Your task to perform on an android device: star an email in the gmail app Image 0: 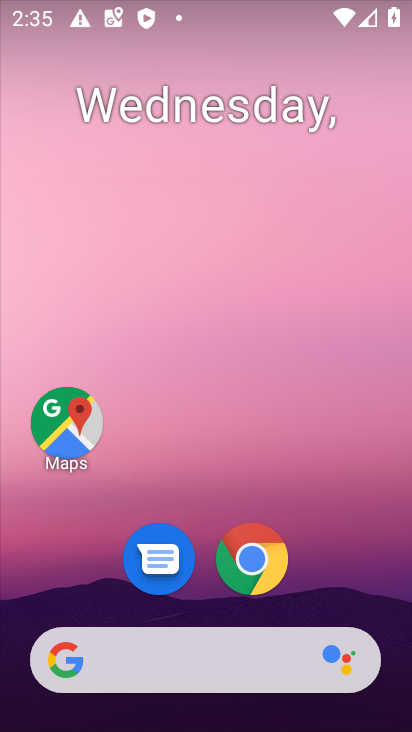
Step 0: drag from (192, 567) to (205, 55)
Your task to perform on an android device: star an email in the gmail app Image 1: 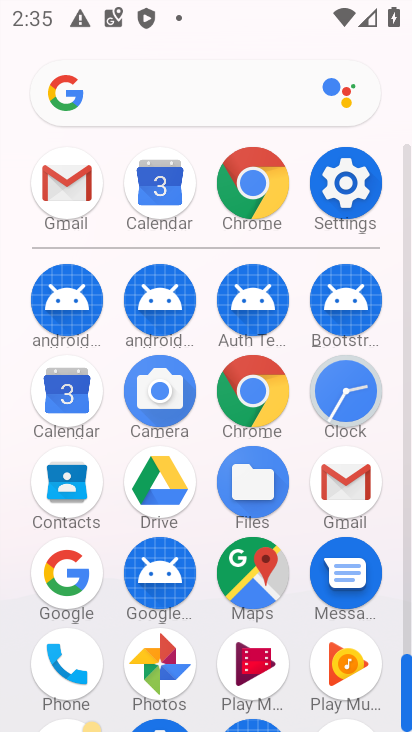
Step 1: click (346, 482)
Your task to perform on an android device: star an email in the gmail app Image 2: 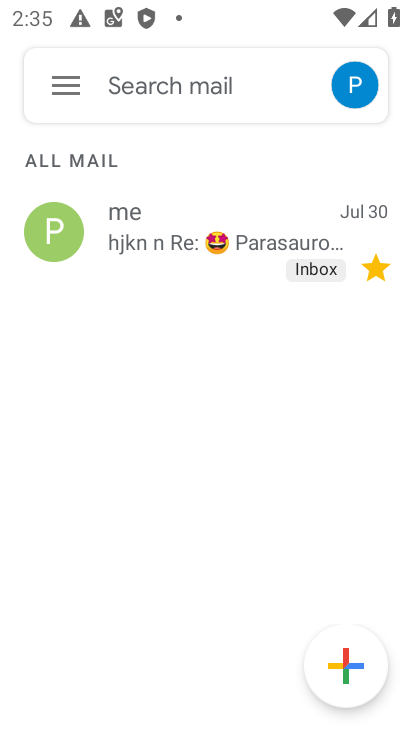
Step 2: task complete